Your task to perform on an android device: Open calendar and show me the third week of next month Image 0: 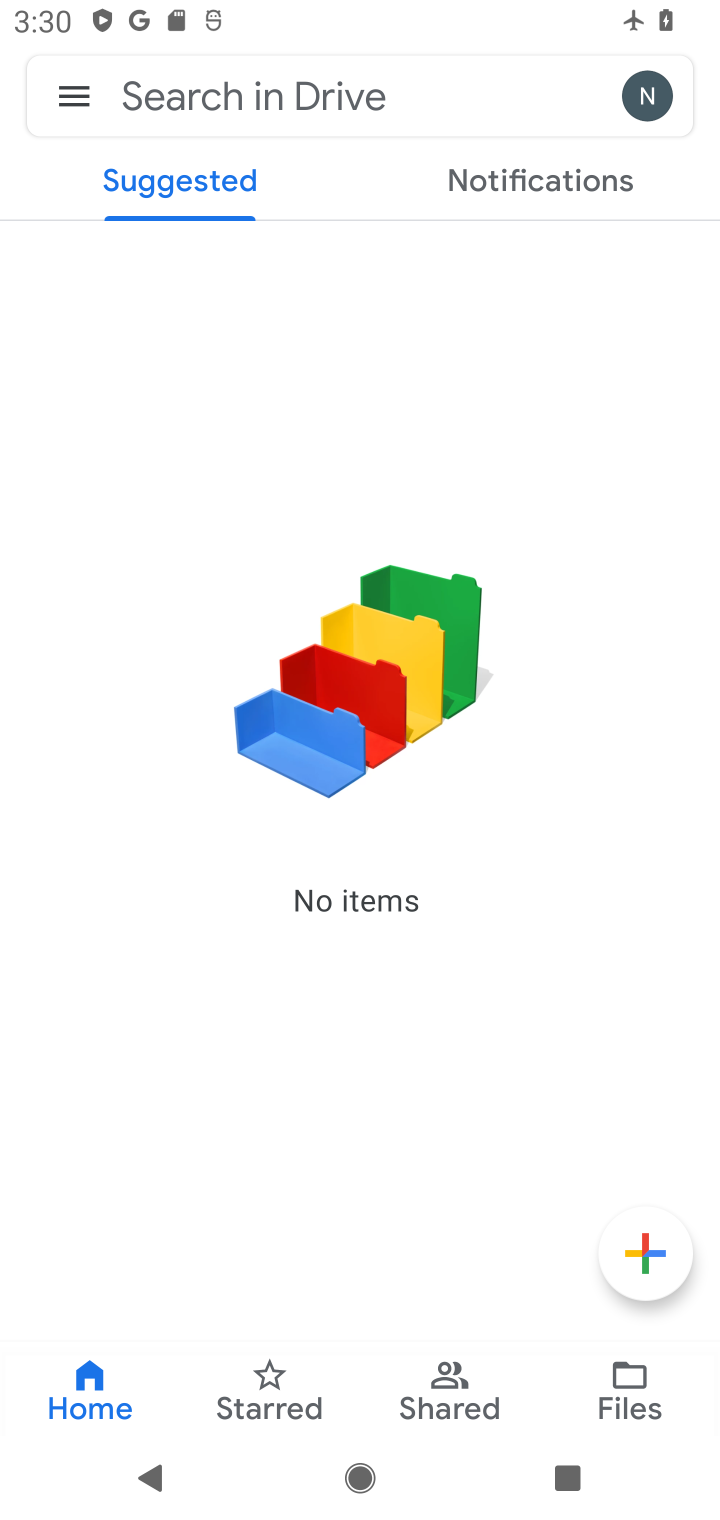
Step 0: press home button
Your task to perform on an android device: Open calendar and show me the third week of next month Image 1: 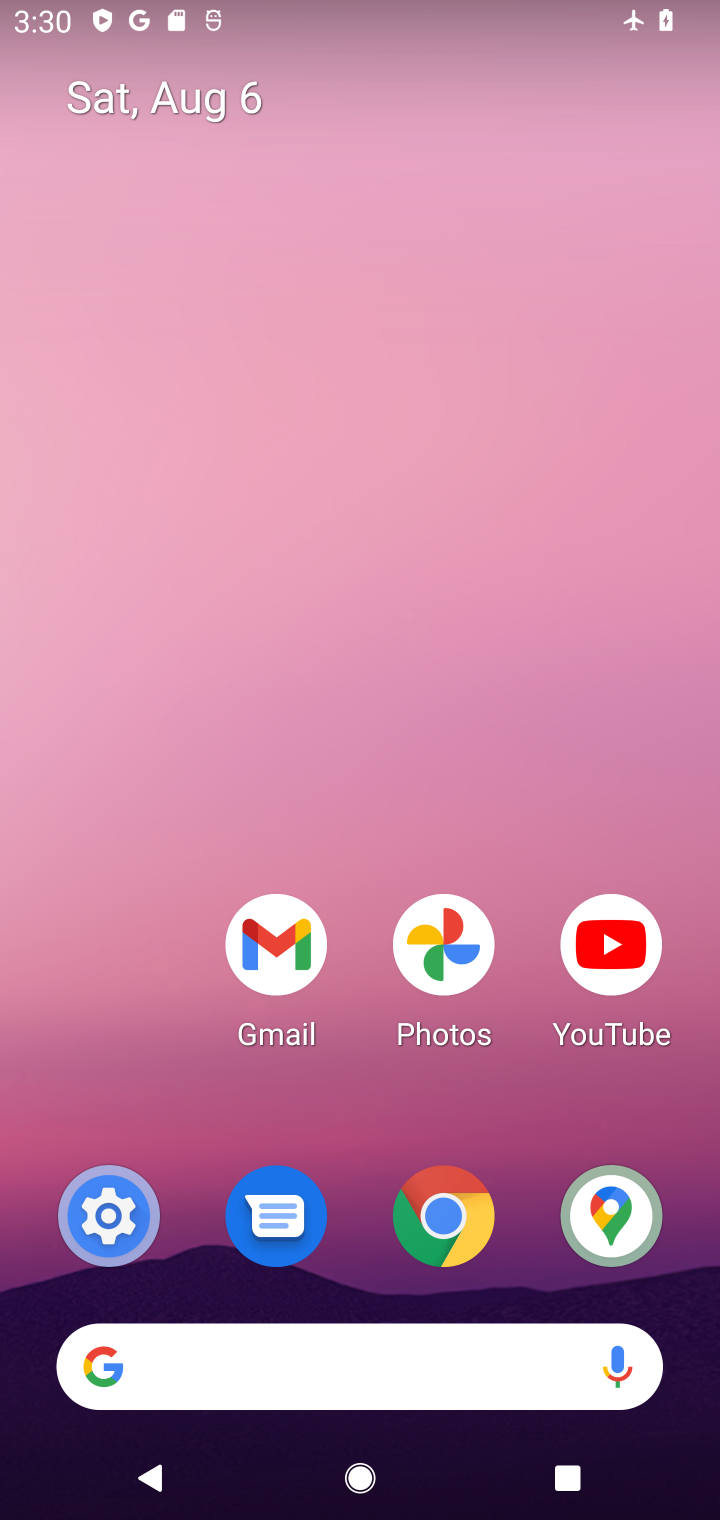
Step 1: drag from (360, 1102) to (384, 271)
Your task to perform on an android device: Open calendar and show me the third week of next month Image 2: 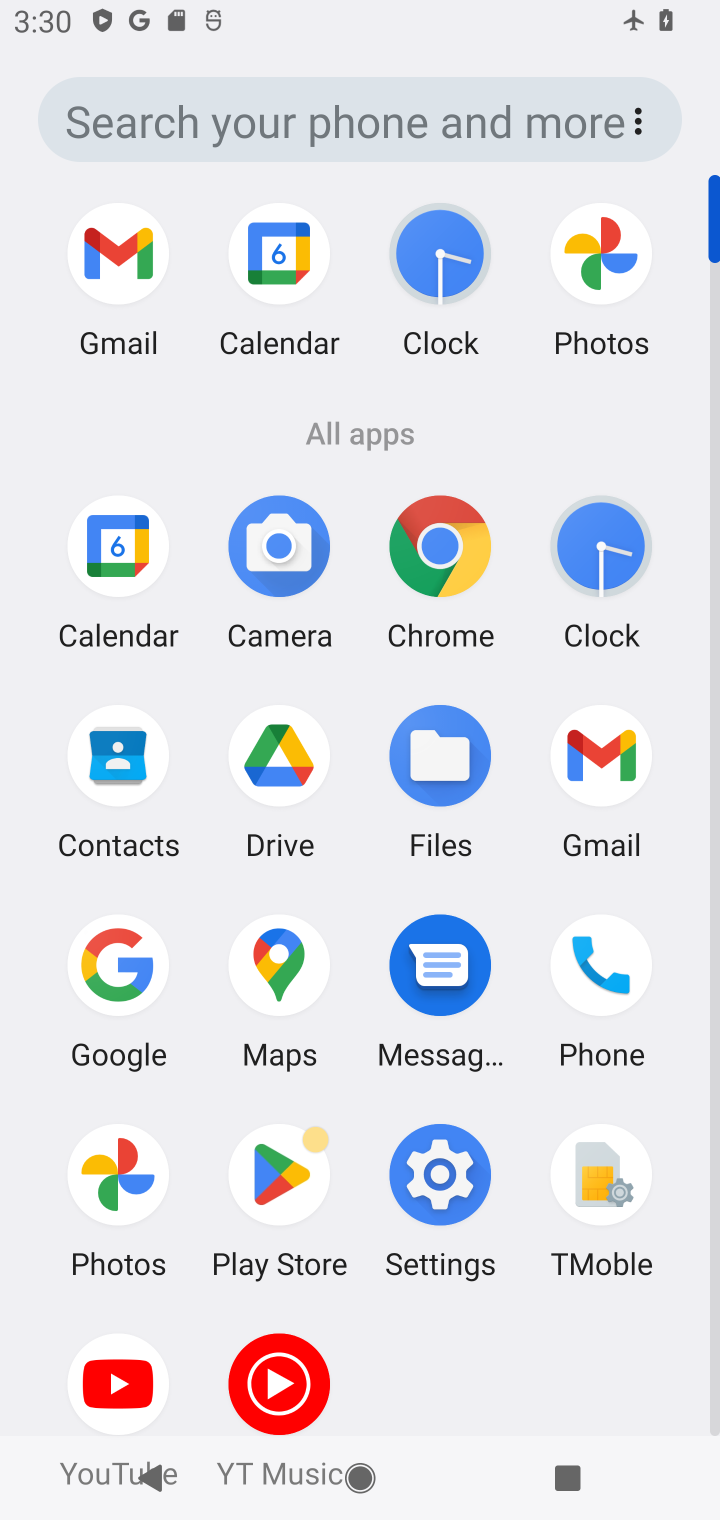
Step 2: click (284, 245)
Your task to perform on an android device: Open calendar and show me the third week of next month Image 3: 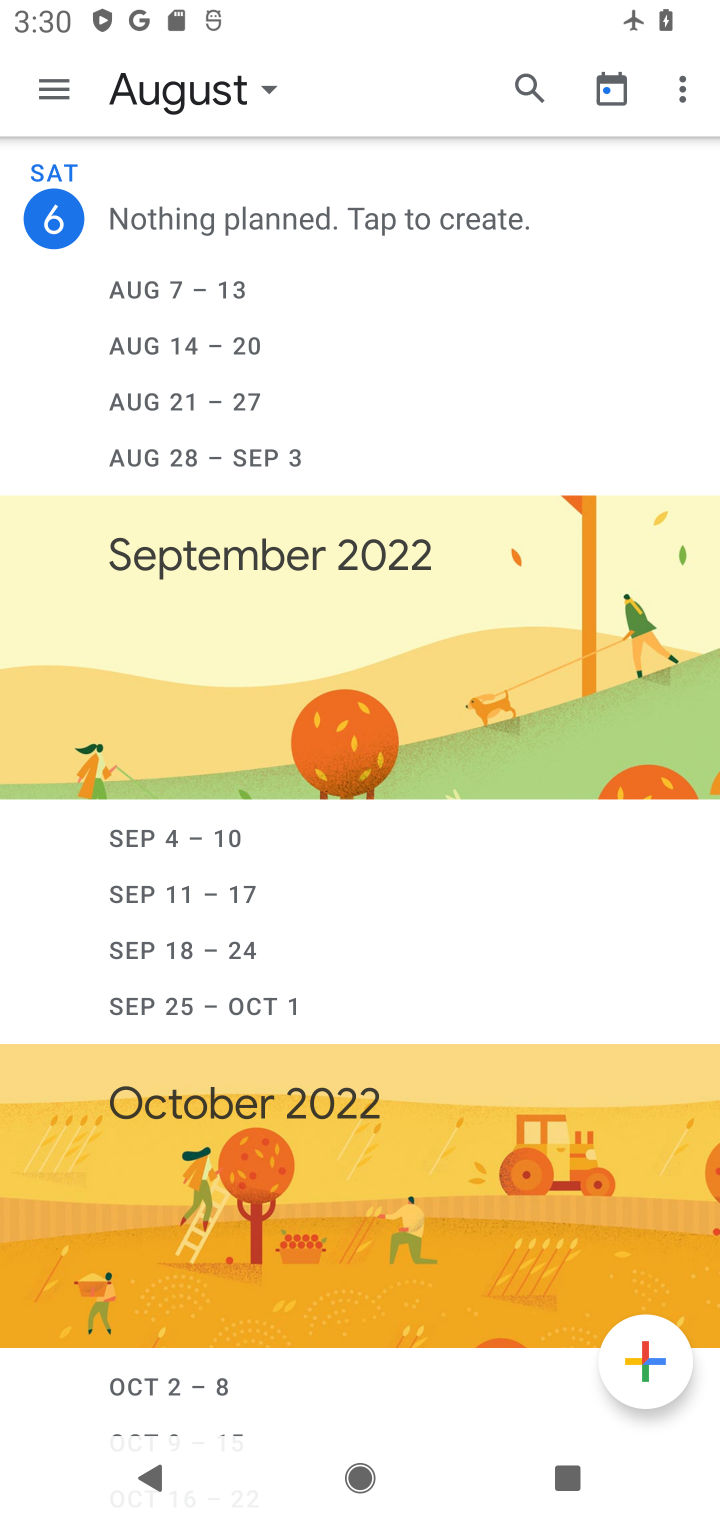
Step 3: click (54, 91)
Your task to perform on an android device: Open calendar and show me the third week of next month Image 4: 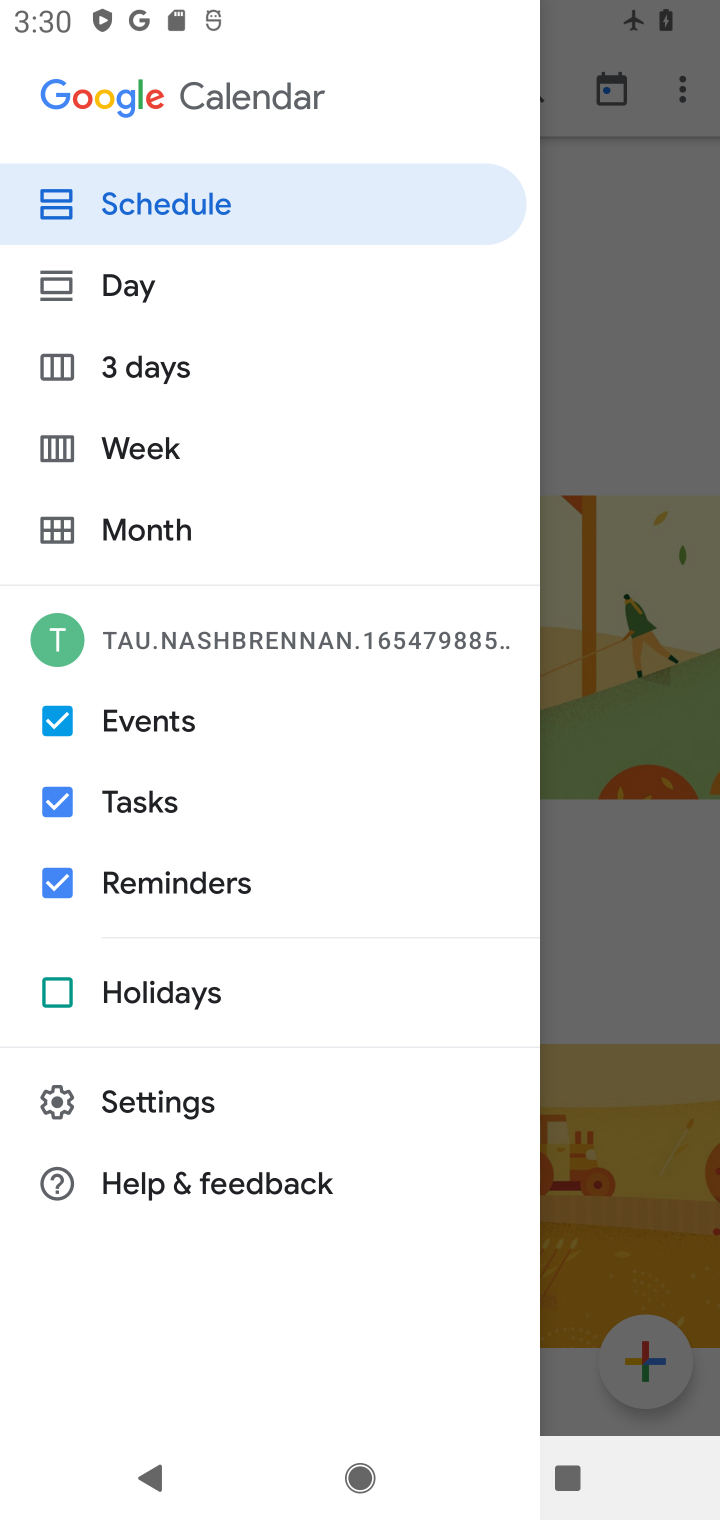
Step 4: click (135, 461)
Your task to perform on an android device: Open calendar and show me the third week of next month Image 5: 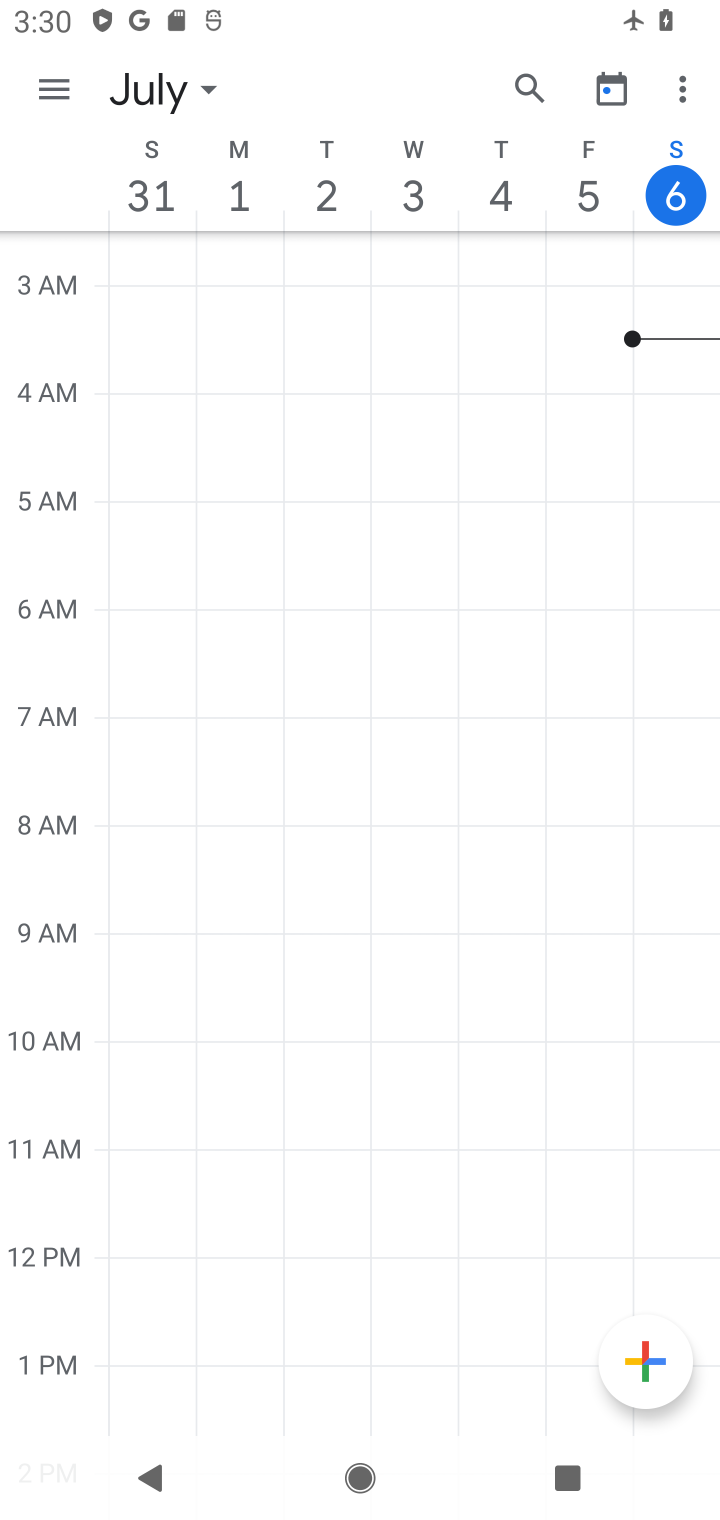
Step 5: click (195, 88)
Your task to perform on an android device: Open calendar and show me the third week of next month Image 6: 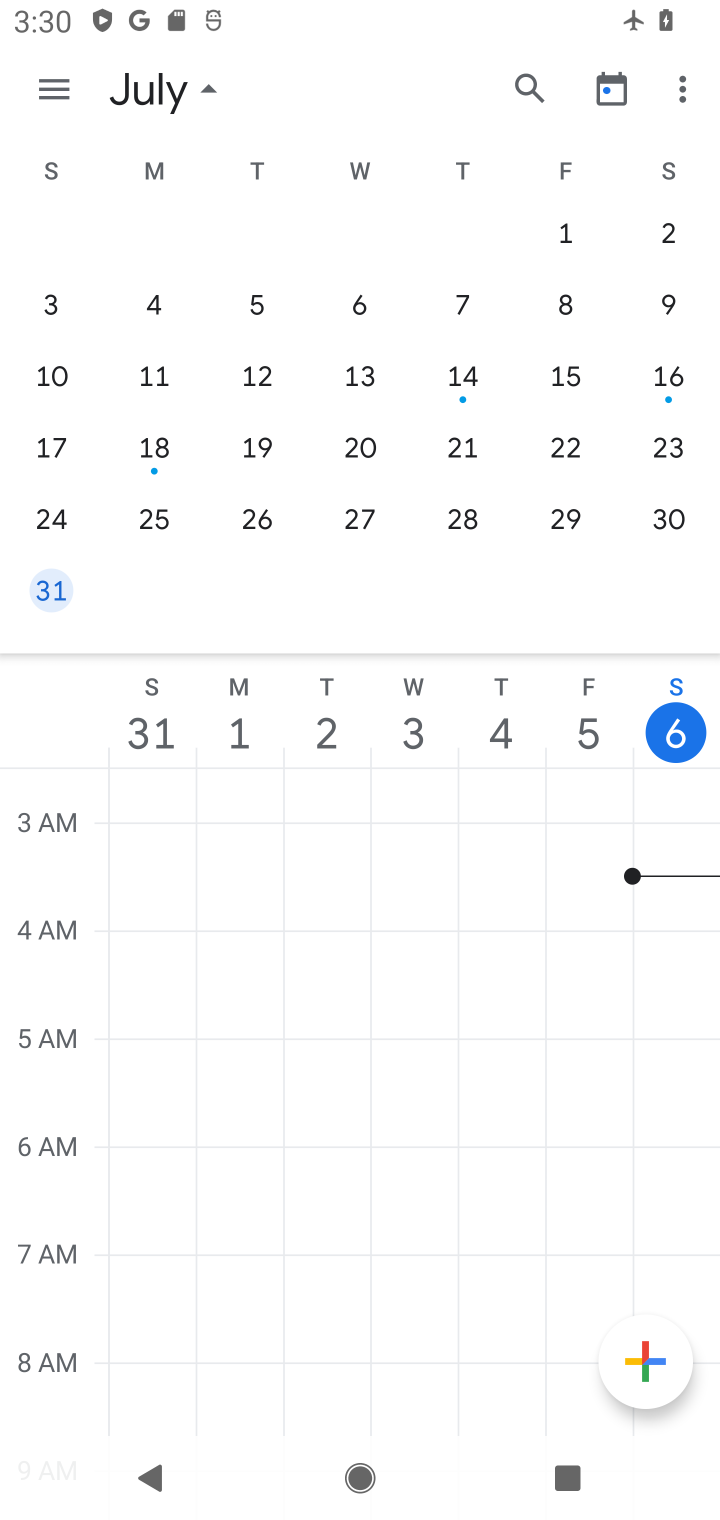
Step 6: drag from (677, 409) to (161, 452)
Your task to perform on an android device: Open calendar and show me the third week of next month Image 7: 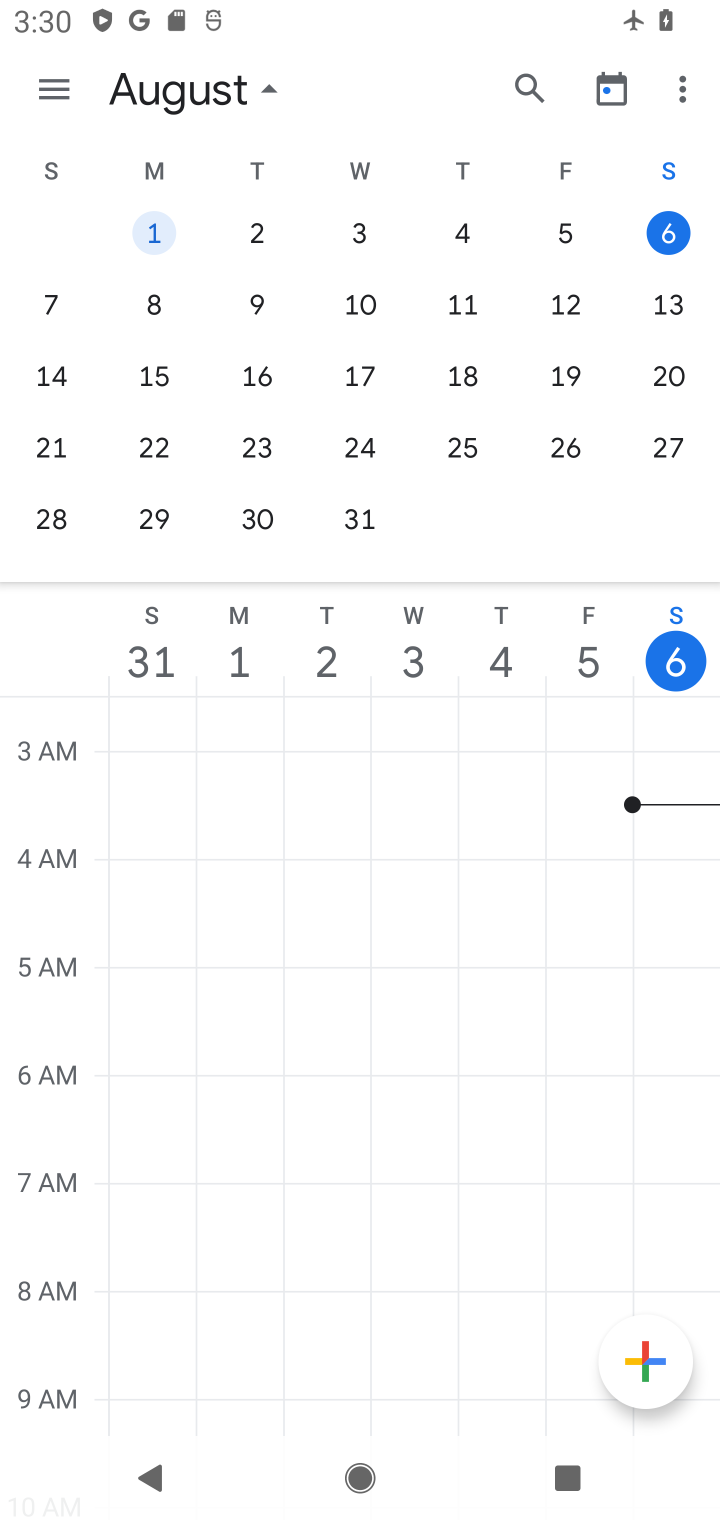
Step 7: drag from (629, 321) to (30, 277)
Your task to perform on an android device: Open calendar and show me the third week of next month Image 8: 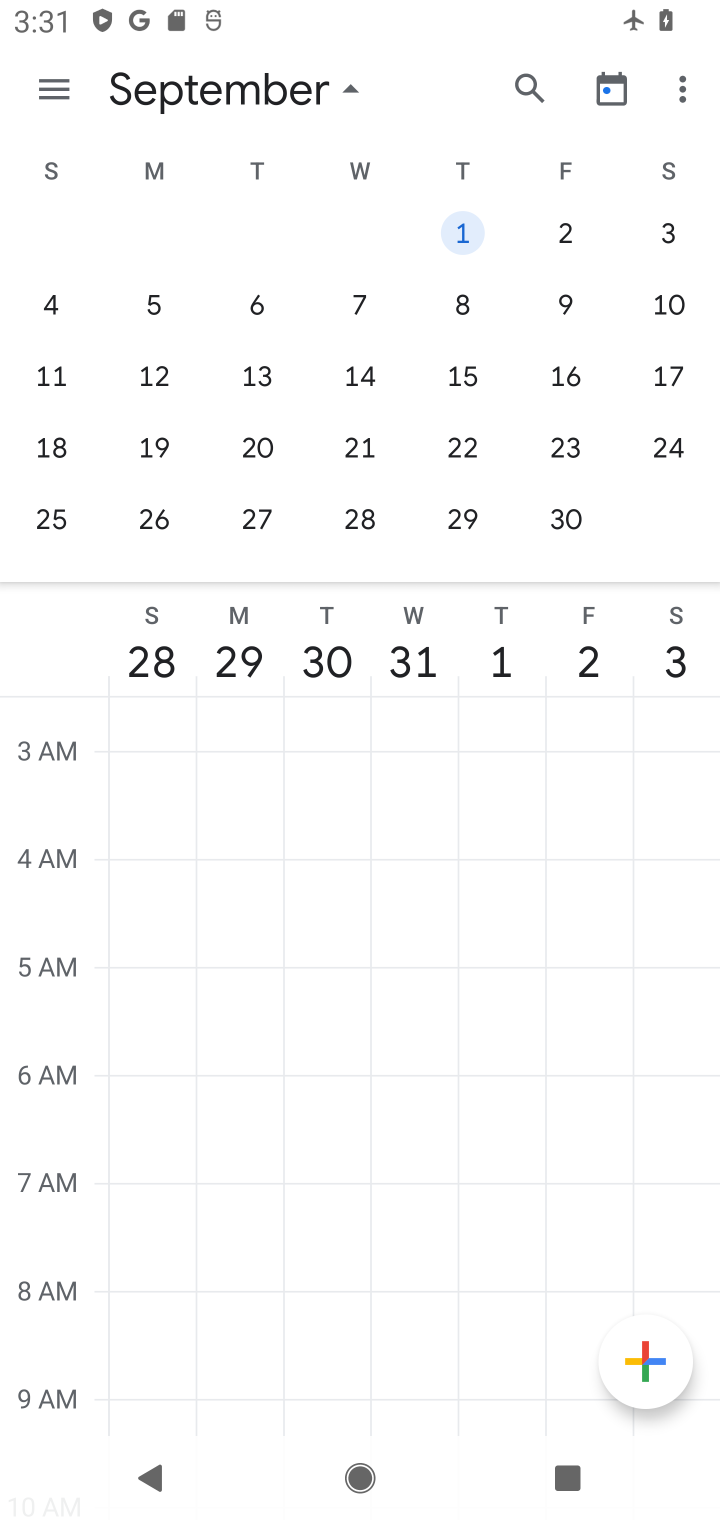
Step 8: click (461, 454)
Your task to perform on an android device: Open calendar and show me the third week of next month Image 9: 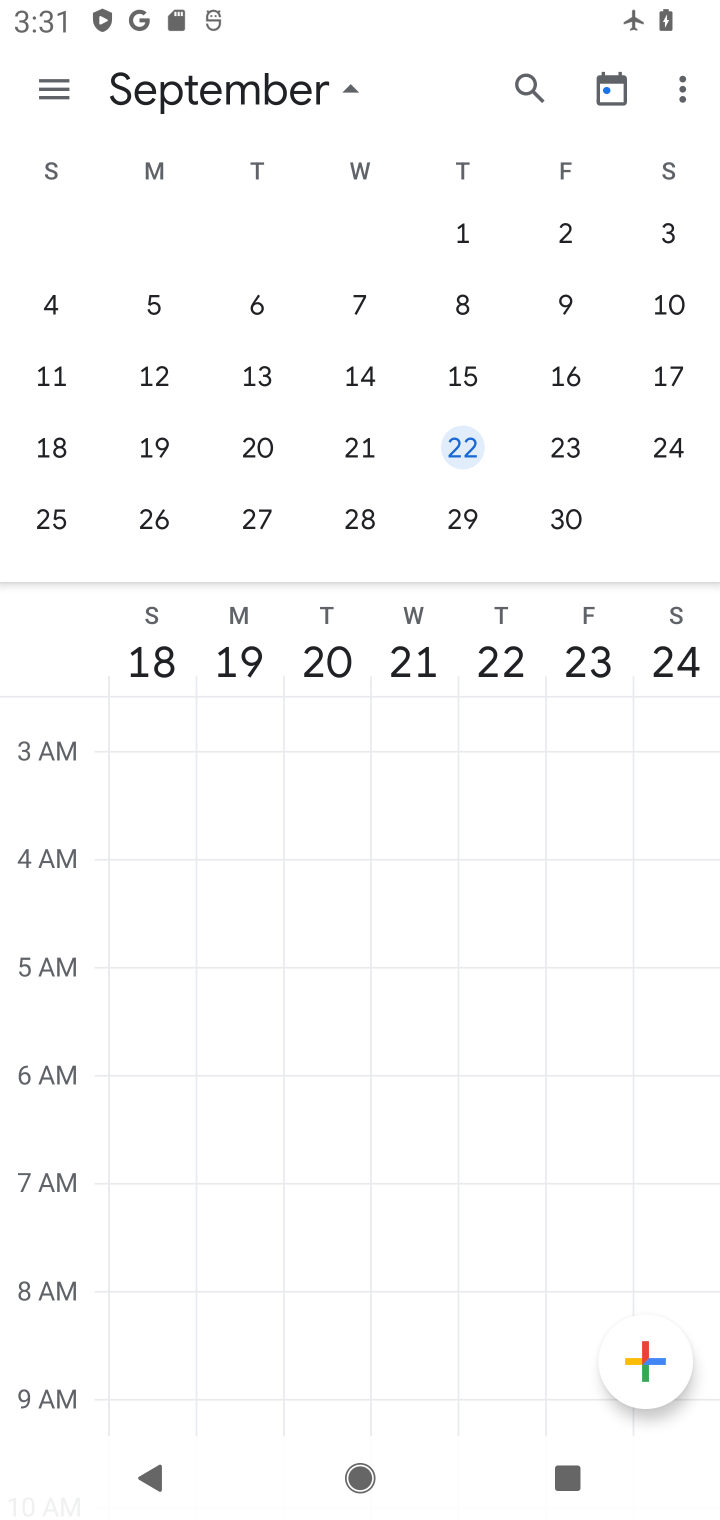
Step 9: task complete